Your task to perform on an android device: all mails in gmail Image 0: 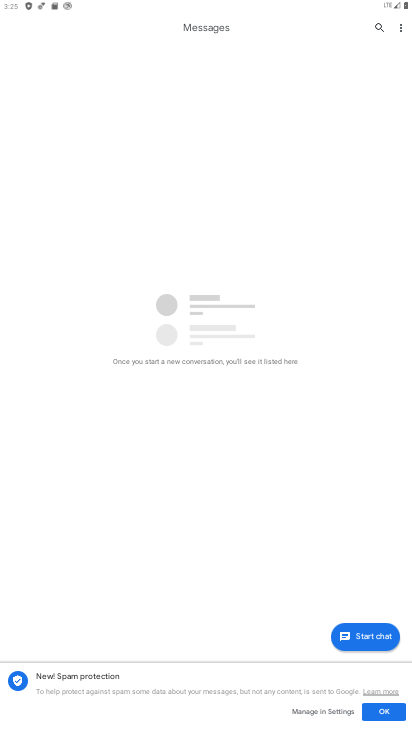
Step 0: press home button
Your task to perform on an android device: all mails in gmail Image 1: 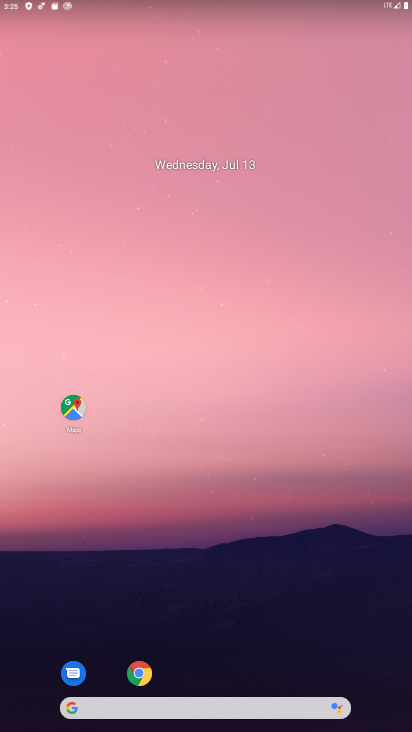
Step 1: drag from (213, 724) to (218, 140)
Your task to perform on an android device: all mails in gmail Image 2: 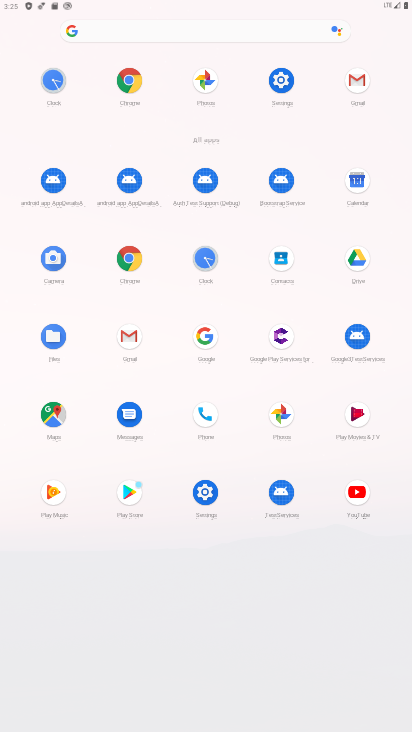
Step 2: click (128, 340)
Your task to perform on an android device: all mails in gmail Image 3: 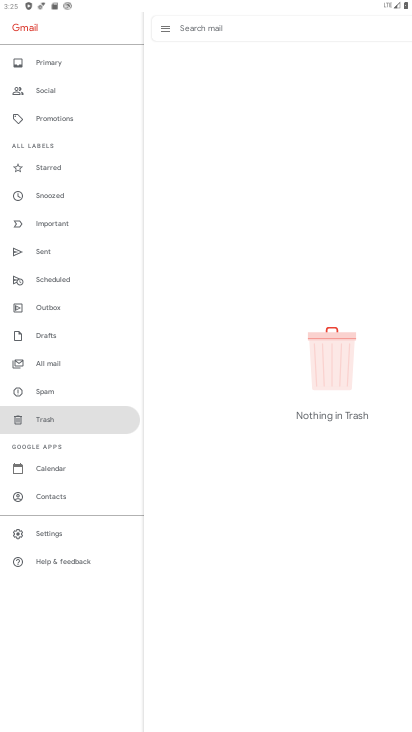
Step 3: click (59, 358)
Your task to perform on an android device: all mails in gmail Image 4: 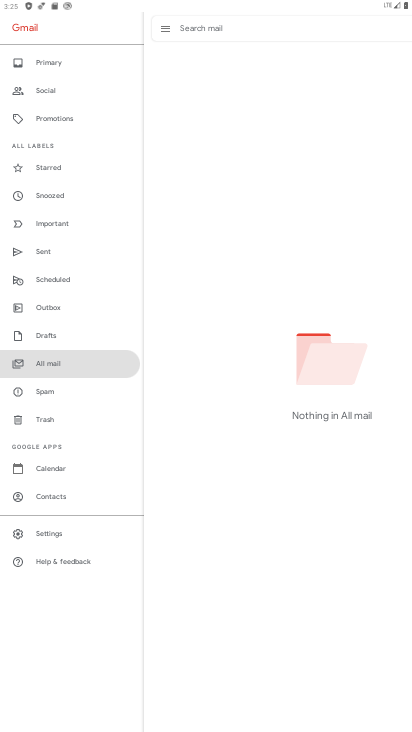
Step 4: task complete